Your task to perform on an android device: toggle sleep mode Image 0: 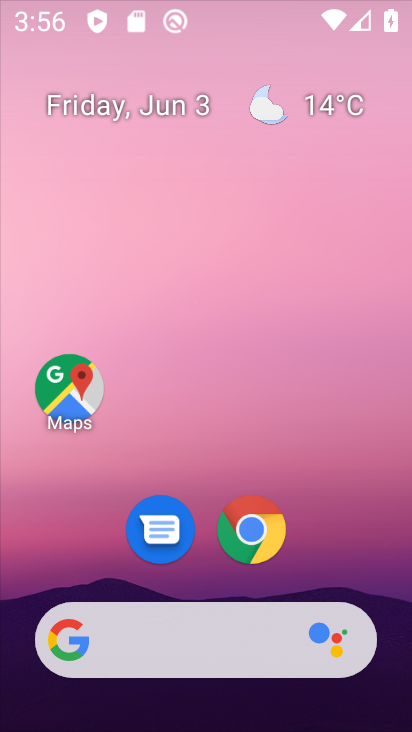
Step 0: drag from (350, 522) to (337, 0)
Your task to perform on an android device: toggle sleep mode Image 1: 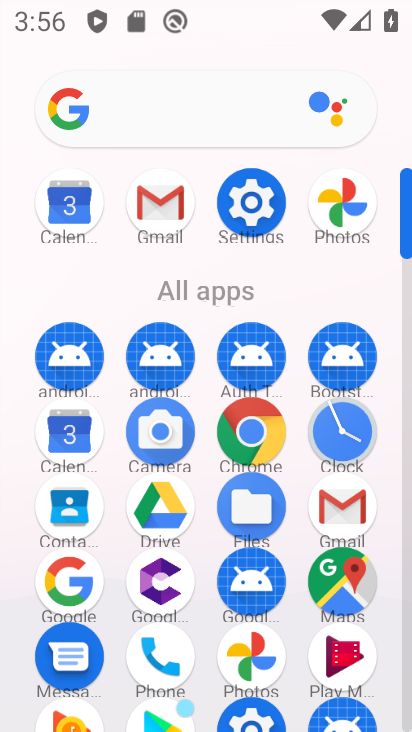
Step 1: click (265, 201)
Your task to perform on an android device: toggle sleep mode Image 2: 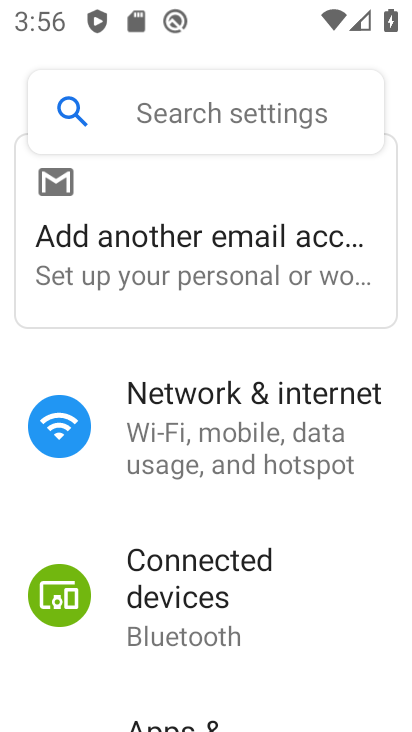
Step 2: drag from (213, 600) to (232, 195)
Your task to perform on an android device: toggle sleep mode Image 3: 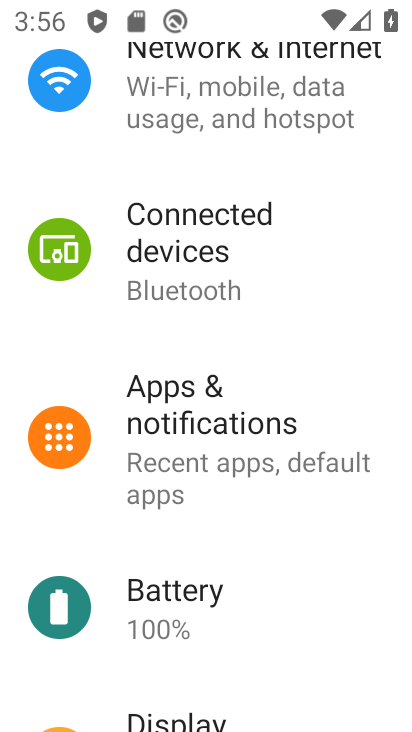
Step 3: drag from (215, 551) to (217, 161)
Your task to perform on an android device: toggle sleep mode Image 4: 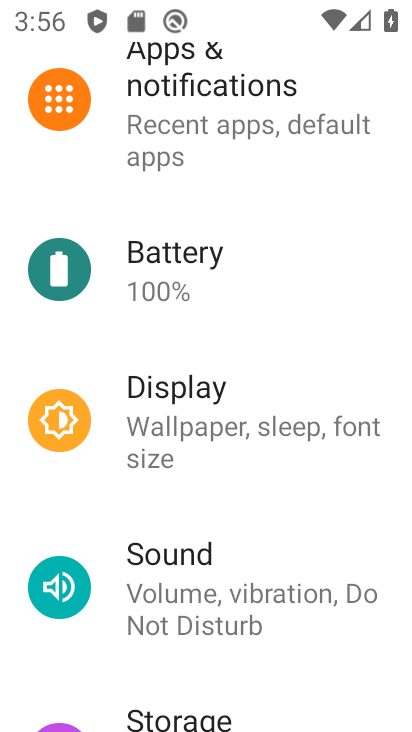
Step 4: click (186, 391)
Your task to perform on an android device: toggle sleep mode Image 5: 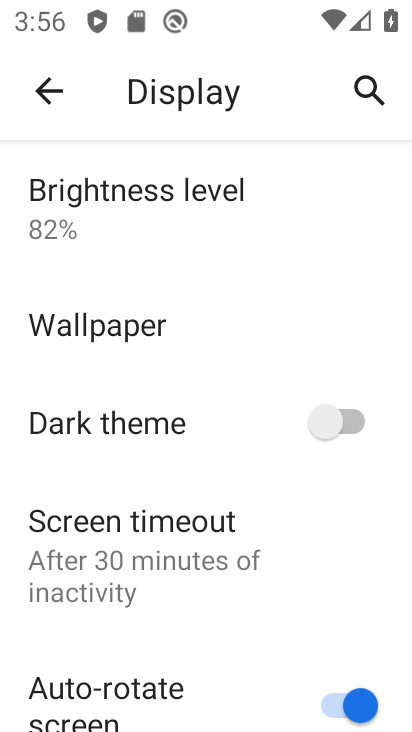
Step 5: click (200, 563)
Your task to perform on an android device: toggle sleep mode Image 6: 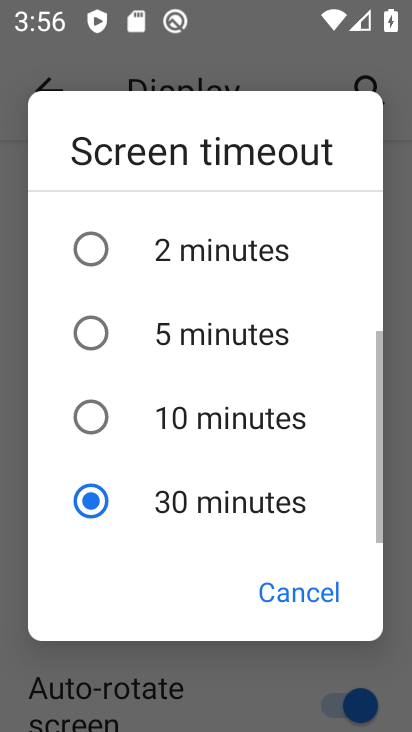
Step 6: click (131, 359)
Your task to perform on an android device: toggle sleep mode Image 7: 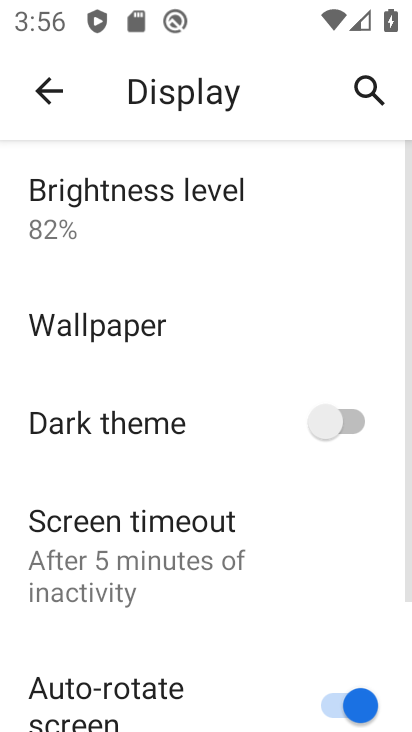
Step 7: task complete